Your task to perform on an android device: Open Google Maps Image 0: 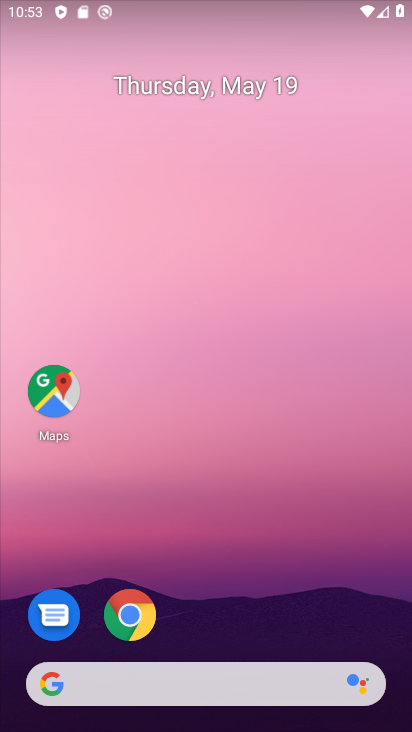
Step 0: click (70, 402)
Your task to perform on an android device: Open Google Maps Image 1: 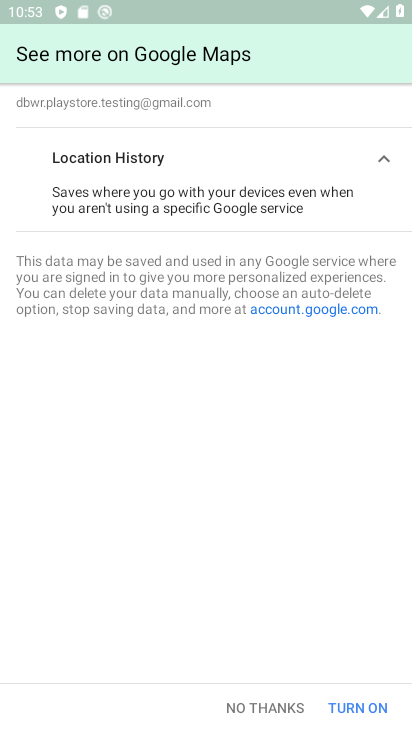
Step 1: task complete